Your task to perform on an android device: turn off priority inbox in the gmail app Image 0: 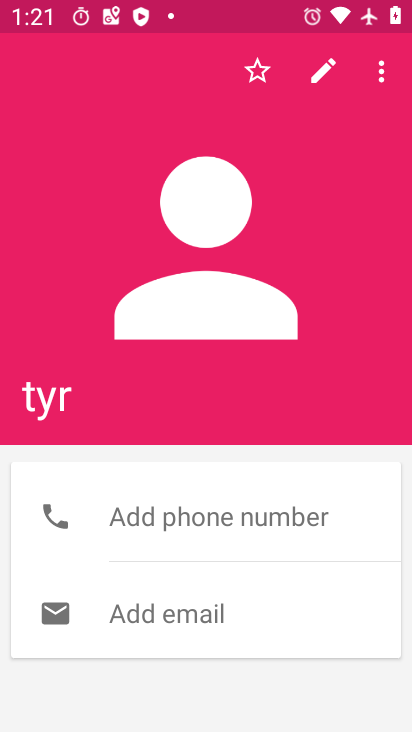
Step 0: press home button
Your task to perform on an android device: turn off priority inbox in the gmail app Image 1: 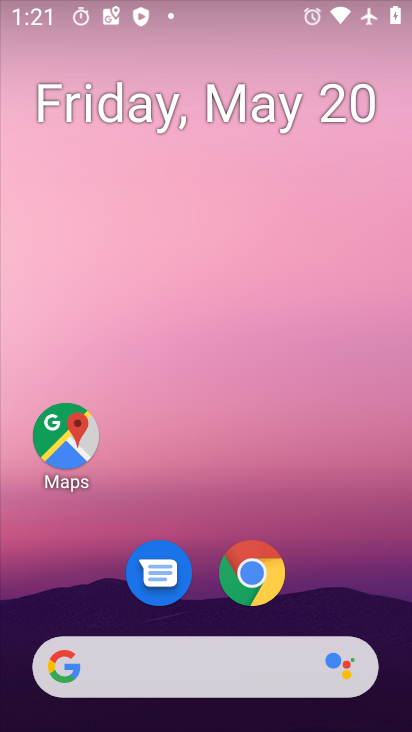
Step 1: drag from (346, 508) to (354, 94)
Your task to perform on an android device: turn off priority inbox in the gmail app Image 2: 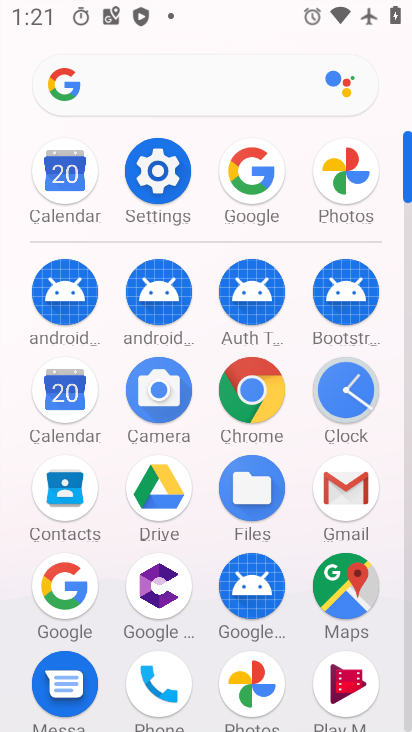
Step 2: click (334, 471)
Your task to perform on an android device: turn off priority inbox in the gmail app Image 3: 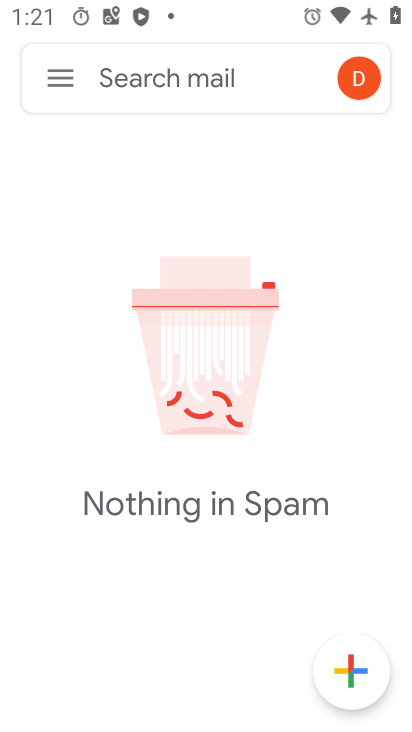
Step 3: click (55, 80)
Your task to perform on an android device: turn off priority inbox in the gmail app Image 4: 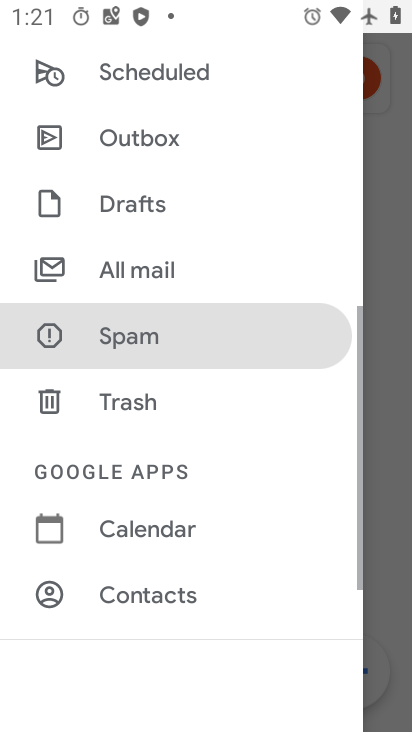
Step 4: drag from (176, 554) to (202, 52)
Your task to perform on an android device: turn off priority inbox in the gmail app Image 5: 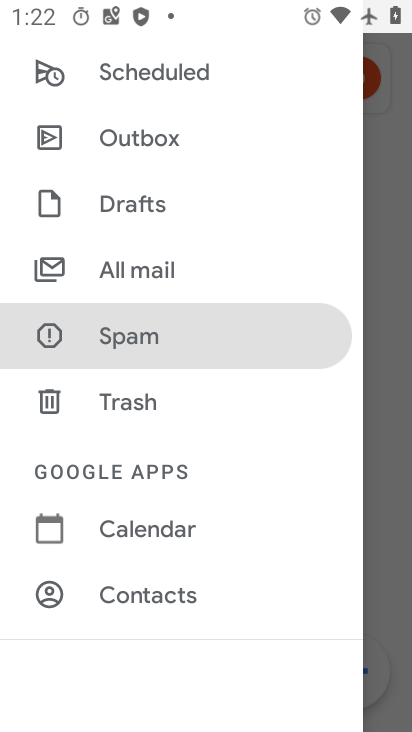
Step 5: drag from (185, 539) to (226, 135)
Your task to perform on an android device: turn off priority inbox in the gmail app Image 6: 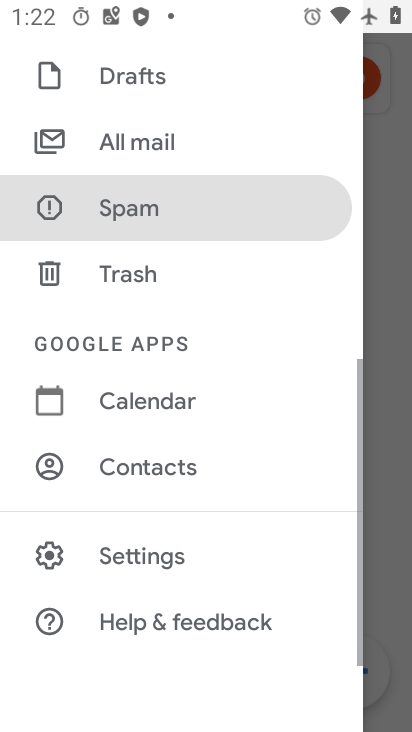
Step 6: click (165, 552)
Your task to perform on an android device: turn off priority inbox in the gmail app Image 7: 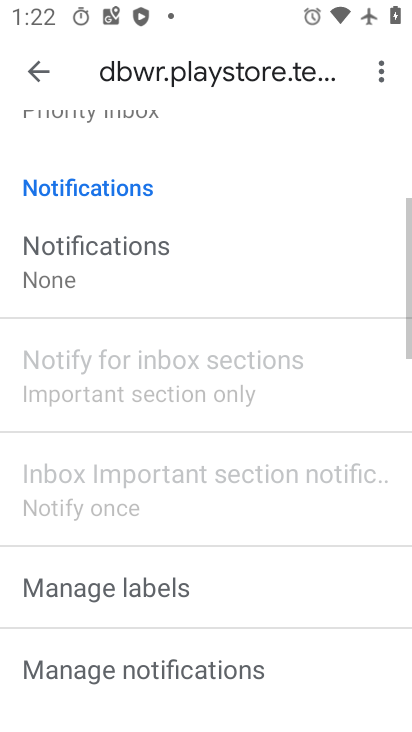
Step 7: drag from (188, 262) to (246, 579)
Your task to perform on an android device: turn off priority inbox in the gmail app Image 8: 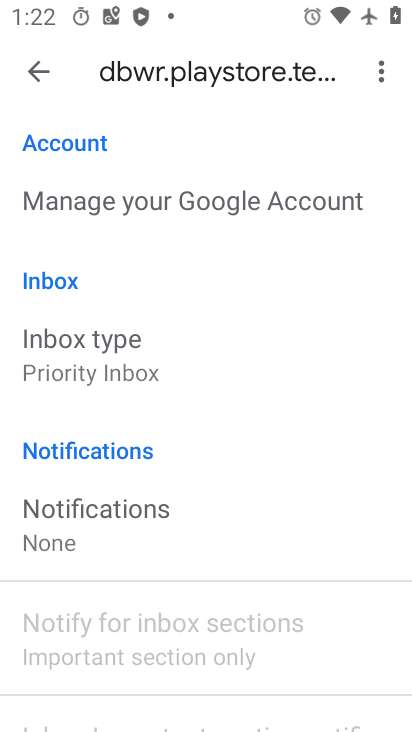
Step 8: click (126, 350)
Your task to perform on an android device: turn off priority inbox in the gmail app Image 9: 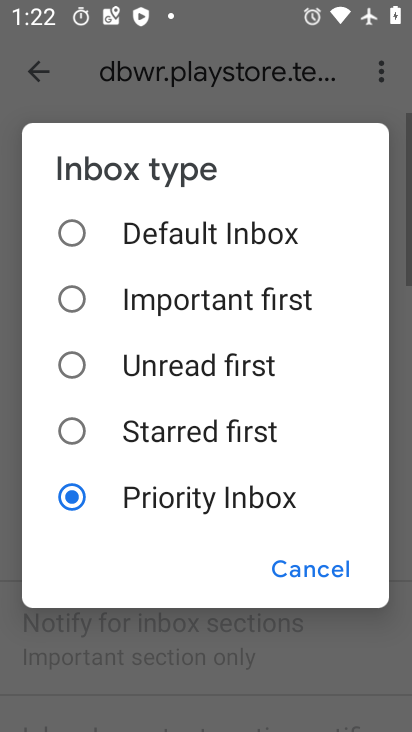
Step 9: click (121, 223)
Your task to perform on an android device: turn off priority inbox in the gmail app Image 10: 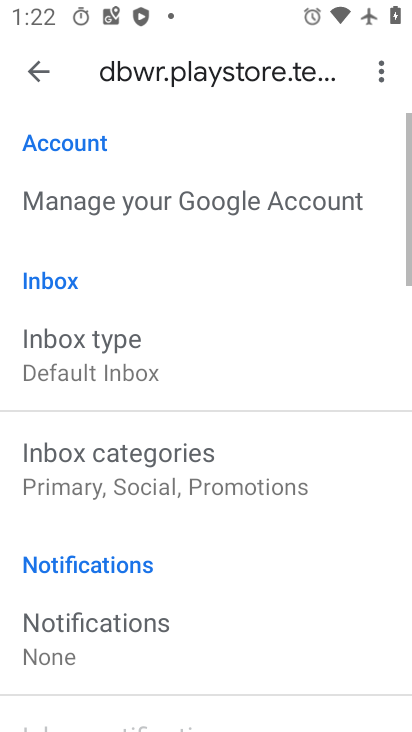
Step 10: task complete